Your task to perform on an android device: Open Amazon Image 0: 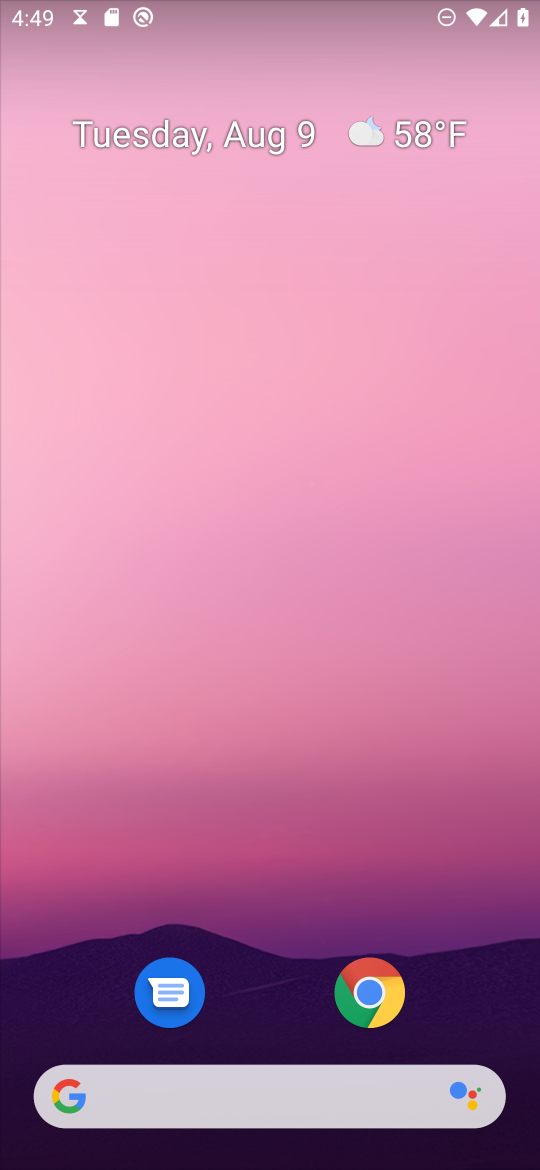
Step 0: drag from (336, 1094) to (314, 7)
Your task to perform on an android device: Open Amazon Image 1: 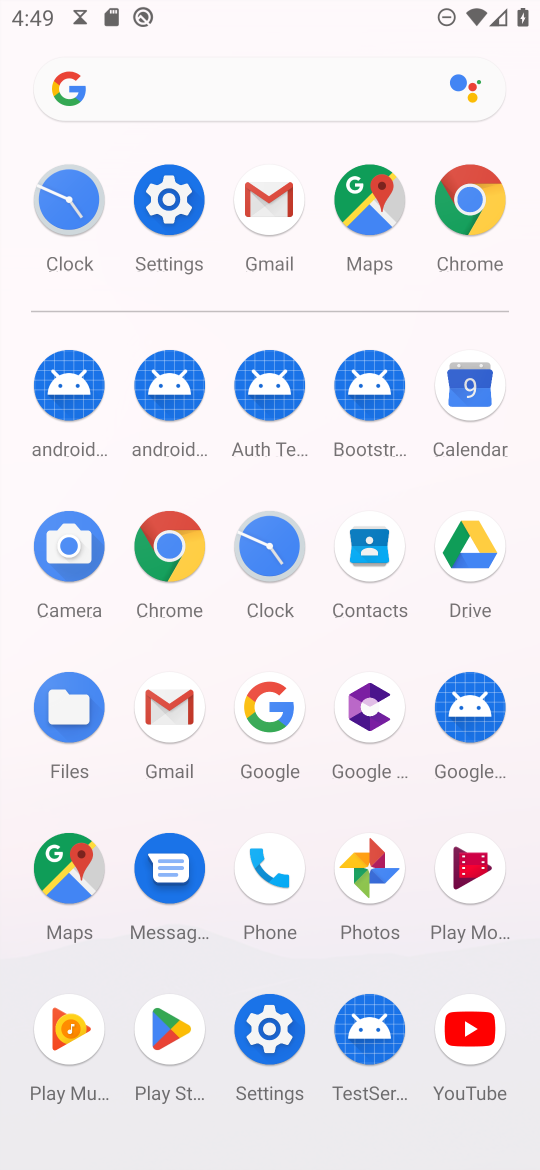
Step 1: click (186, 520)
Your task to perform on an android device: Open Amazon Image 2: 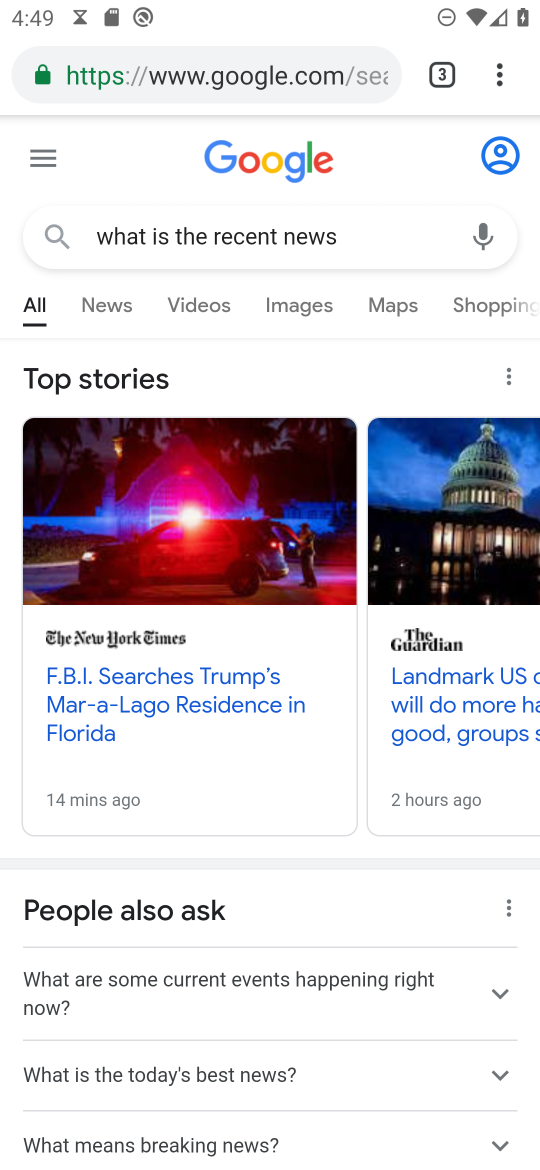
Step 2: click (506, 68)
Your task to perform on an android device: Open Amazon Image 3: 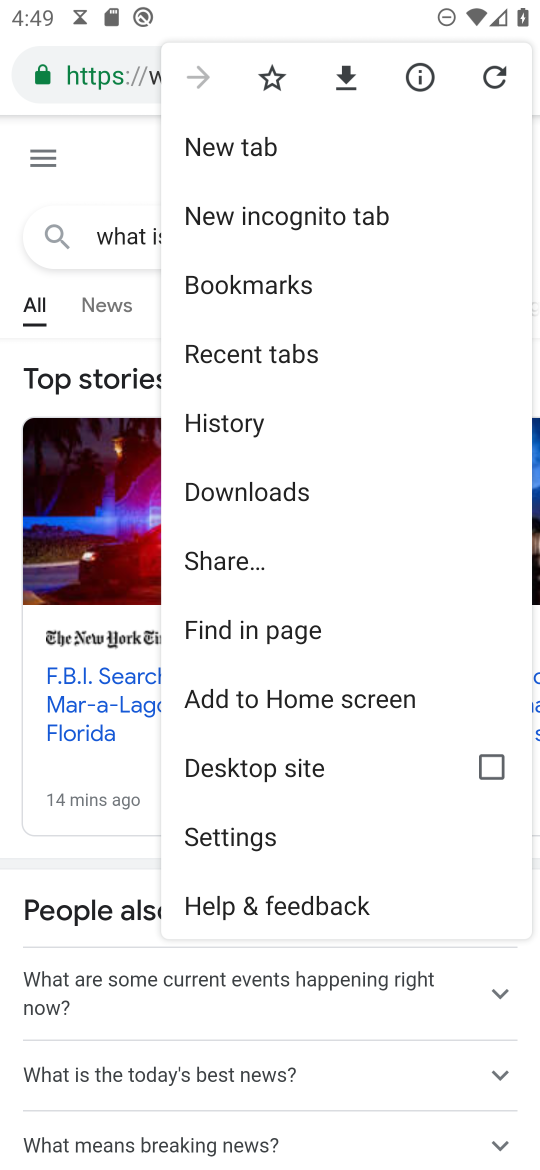
Step 3: click (316, 144)
Your task to perform on an android device: Open Amazon Image 4: 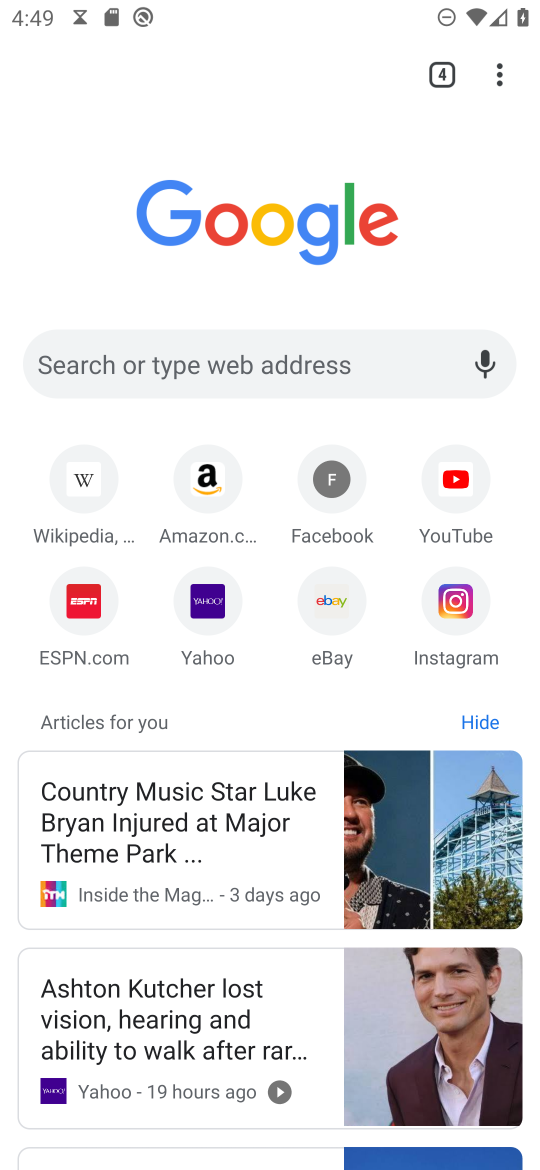
Step 4: click (211, 502)
Your task to perform on an android device: Open Amazon Image 5: 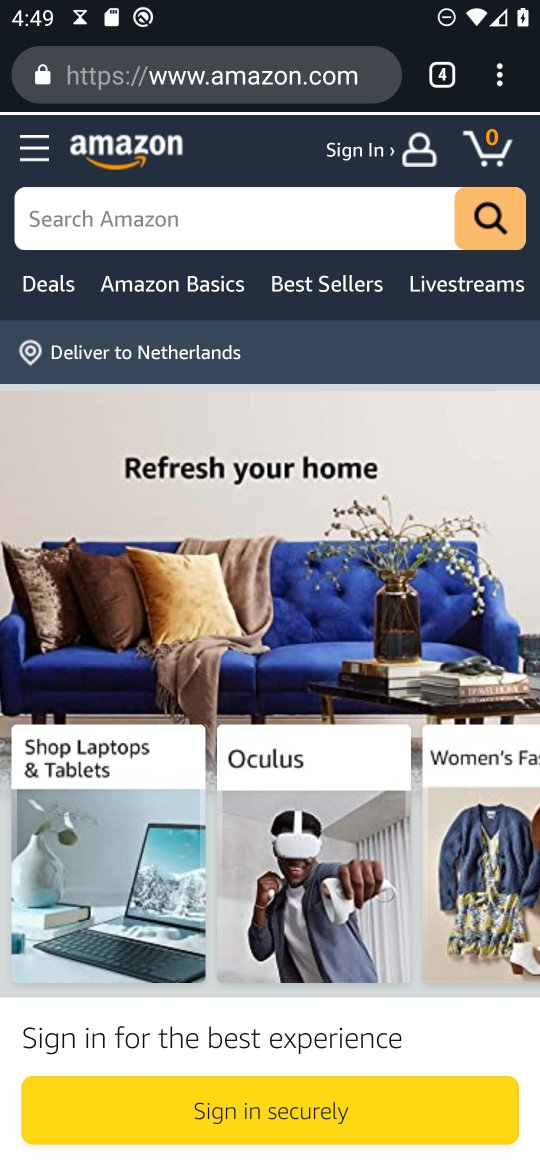
Step 5: task complete